Your task to perform on an android device: open sync settings in chrome Image 0: 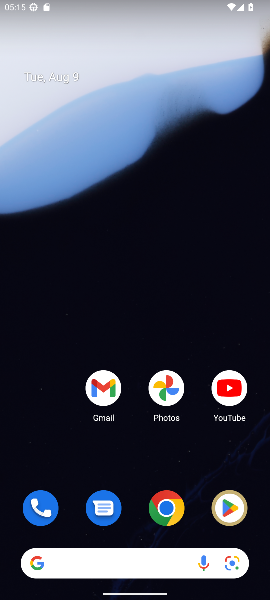
Step 0: click (168, 512)
Your task to perform on an android device: open sync settings in chrome Image 1: 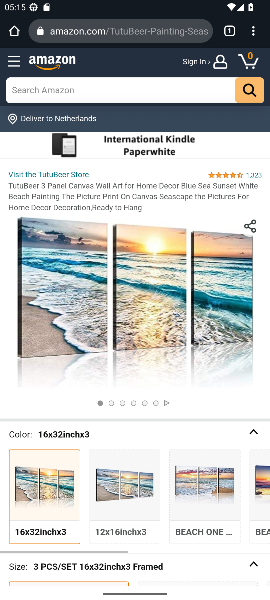
Step 1: click (252, 32)
Your task to perform on an android device: open sync settings in chrome Image 2: 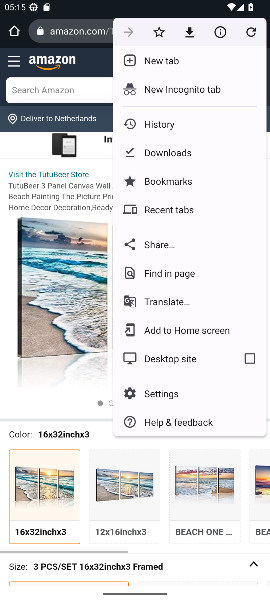
Step 2: click (155, 385)
Your task to perform on an android device: open sync settings in chrome Image 3: 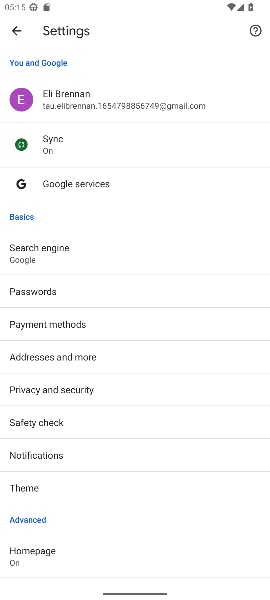
Step 3: click (66, 142)
Your task to perform on an android device: open sync settings in chrome Image 4: 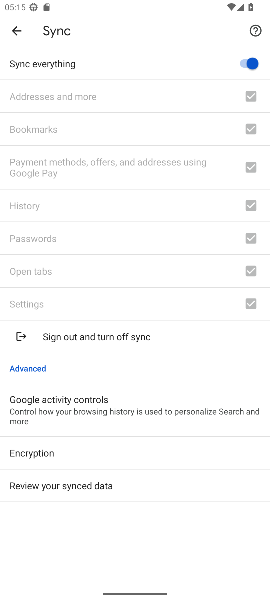
Step 4: task complete